Your task to perform on an android device: turn off smart reply in the gmail app Image 0: 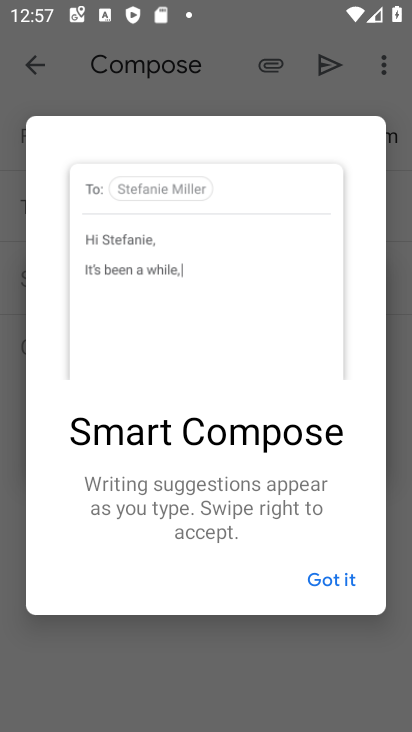
Step 0: press home button
Your task to perform on an android device: turn off smart reply in the gmail app Image 1: 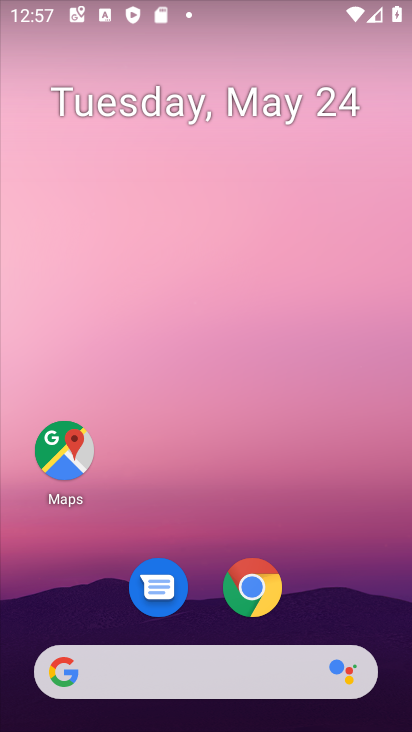
Step 1: drag from (285, 710) to (221, 170)
Your task to perform on an android device: turn off smart reply in the gmail app Image 2: 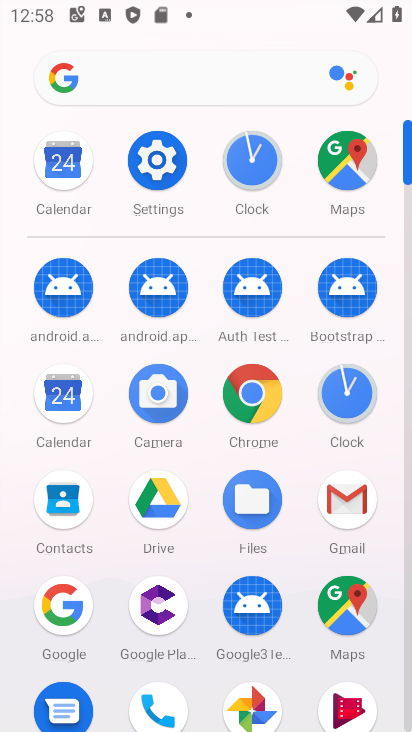
Step 2: click (352, 497)
Your task to perform on an android device: turn off smart reply in the gmail app Image 3: 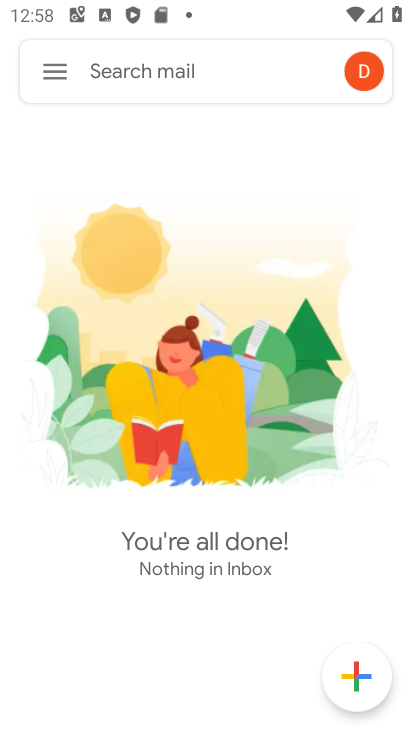
Step 3: click (57, 74)
Your task to perform on an android device: turn off smart reply in the gmail app Image 4: 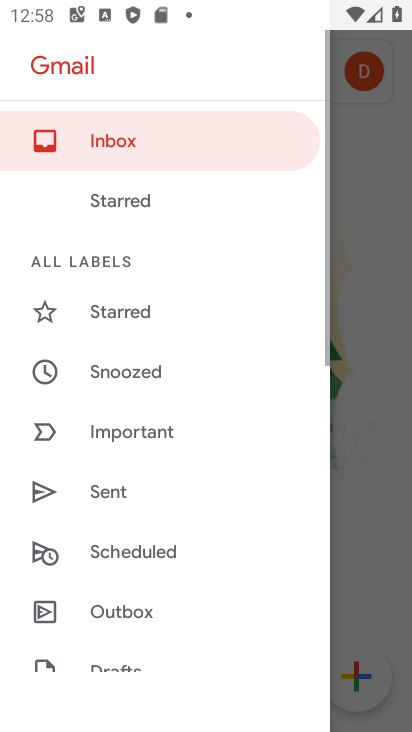
Step 4: drag from (193, 611) to (162, 67)
Your task to perform on an android device: turn off smart reply in the gmail app Image 5: 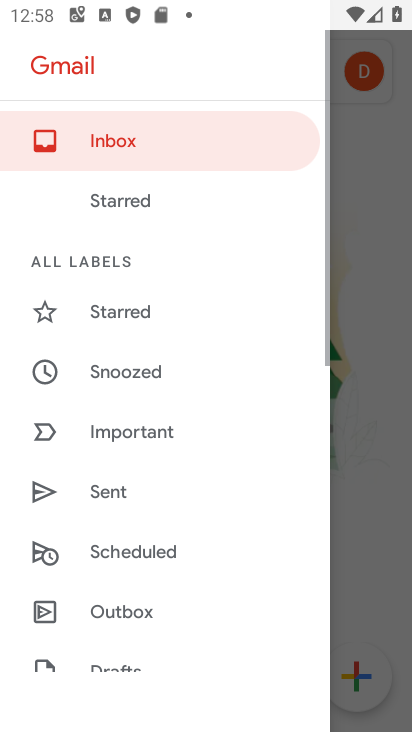
Step 5: drag from (74, 558) to (69, 89)
Your task to perform on an android device: turn off smart reply in the gmail app Image 6: 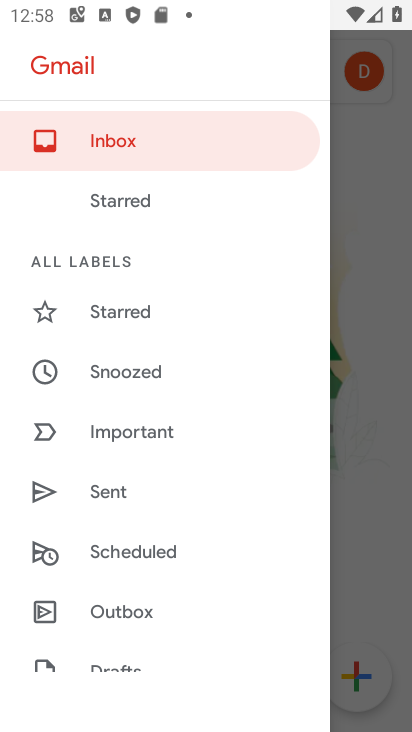
Step 6: drag from (115, 601) to (168, 45)
Your task to perform on an android device: turn off smart reply in the gmail app Image 7: 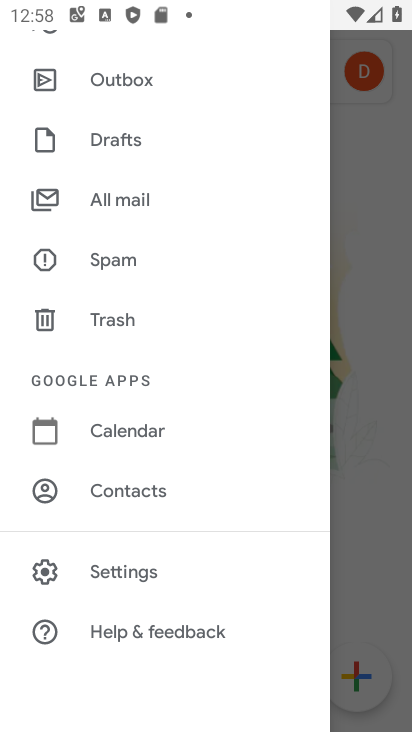
Step 7: click (144, 570)
Your task to perform on an android device: turn off smart reply in the gmail app Image 8: 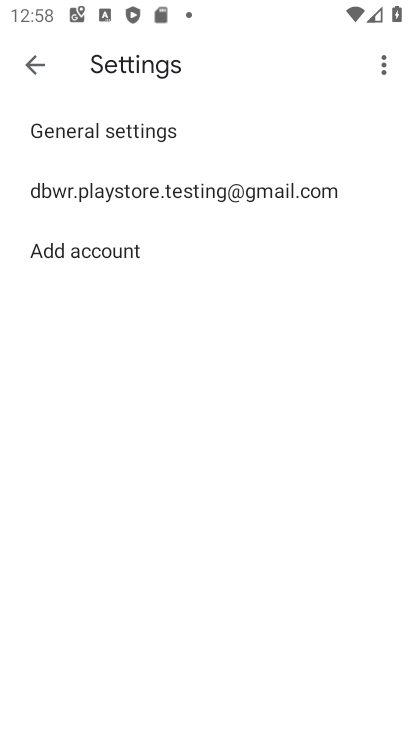
Step 8: click (279, 191)
Your task to perform on an android device: turn off smart reply in the gmail app Image 9: 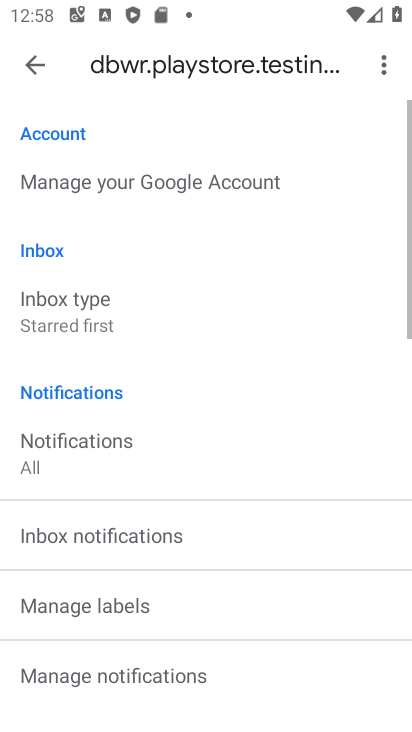
Step 9: drag from (265, 585) to (320, 16)
Your task to perform on an android device: turn off smart reply in the gmail app Image 10: 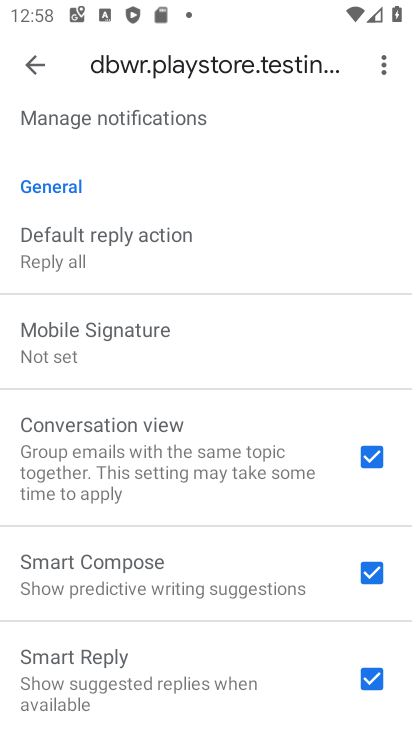
Step 10: drag from (221, 641) to (158, 106)
Your task to perform on an android device: turn off smart reply in the gmail app Image 11: 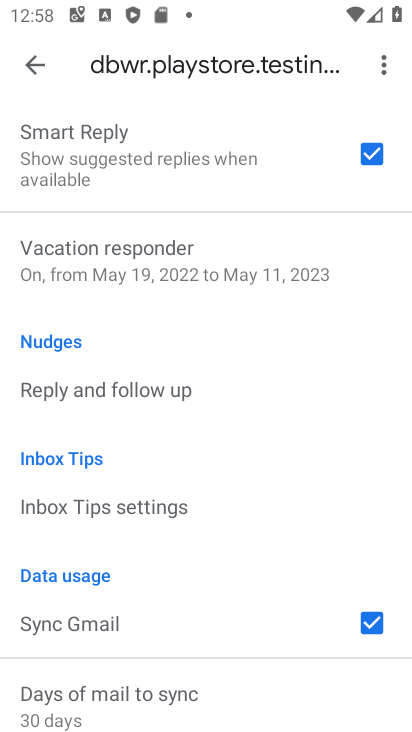
Step 11: click (369, 159)
Your task to perform on an android device: turn off smart reply in the gmail app Image 12: 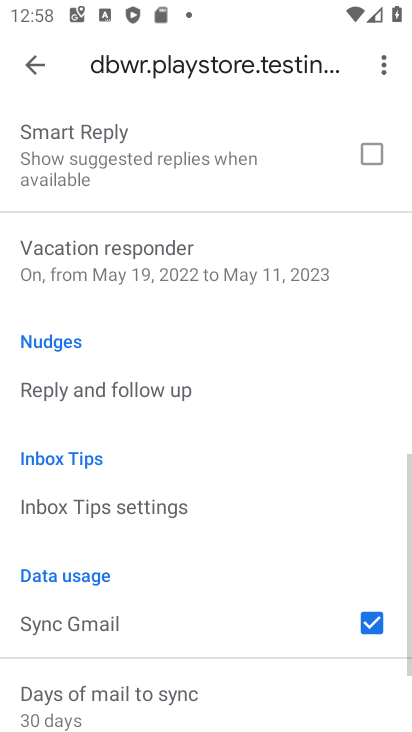
Step 12: task complete